Your task to perform on an android device: empty trash in the gmail app Image 0: 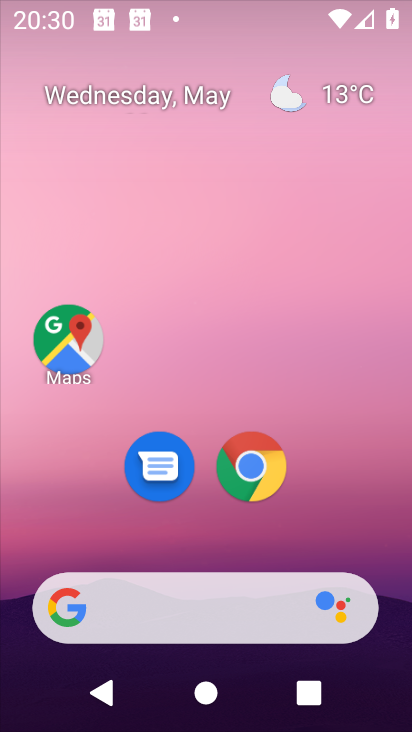
Step 0: drag from (204, 527) to (238, 83)
Your task to perform on an android device: empty trash in the gmail app Image 1: 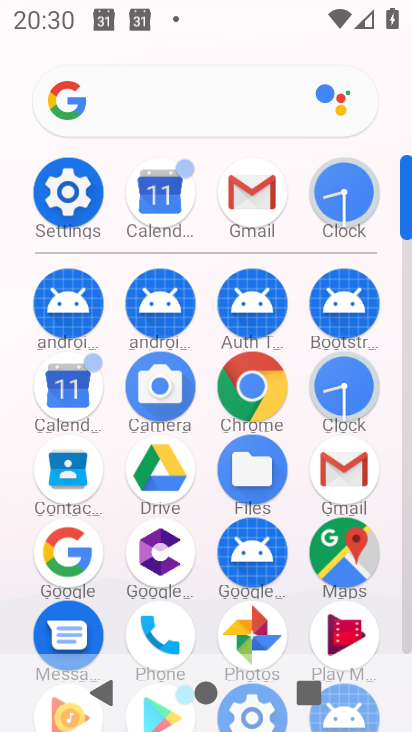
Step 1: click (340, 461)
Your task to perform on an android device: empty trash in the gmail app Image 2: 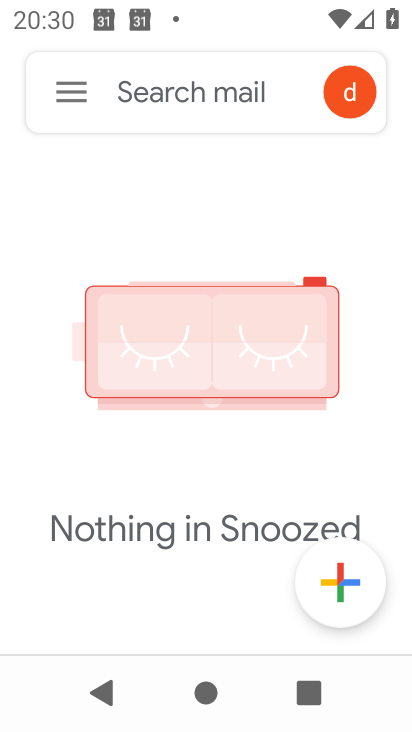
Step 2: click (65, 91)
Your task to perform on an android device: empty trash in the gmail app Image 3: 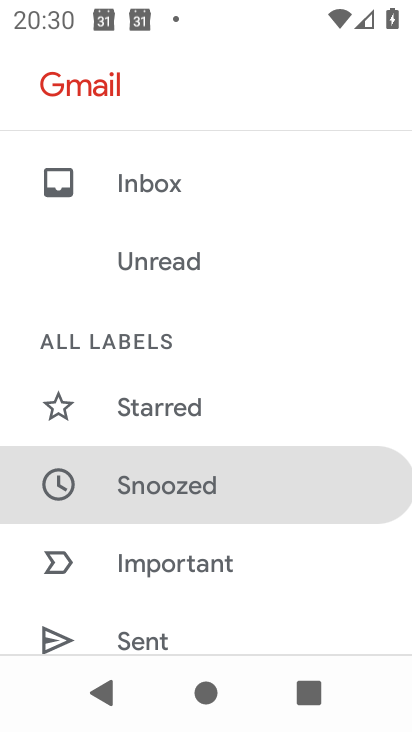
Step 3: drag from (191, 594) to (183, 154)
Your task to perform on an android device: empty trash in the gmail app Image 4: 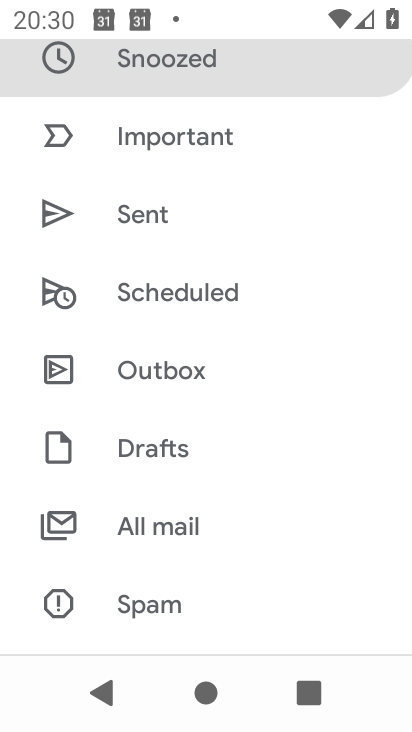
Step 4: drag from (188, 588) to (185, 173)
Your task to perform on an android device: empty trash in the gmail app Image 5: 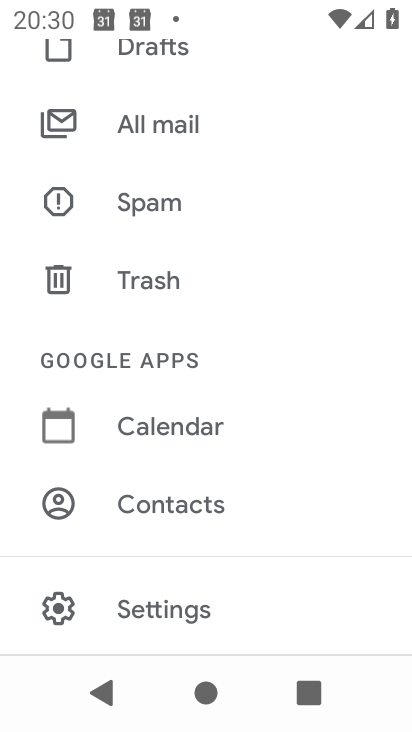
Step 5: click (191, 274)
Your task to perform on an android device: empty trash in the gmail app Image 6: 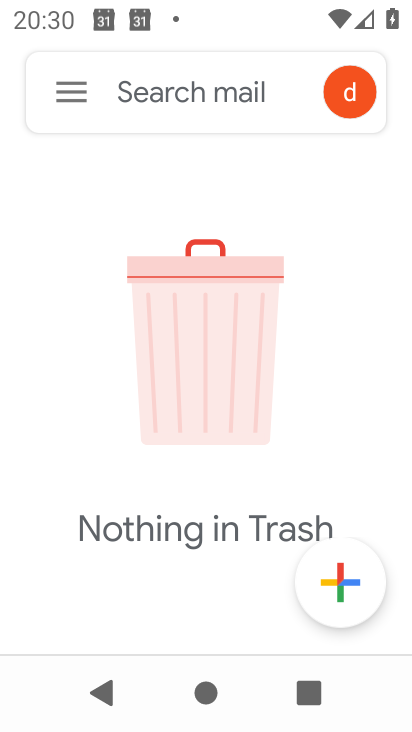
Step 6: task complete